Your task to perform on an android device: open a bookmark in the chrome app Image 0: 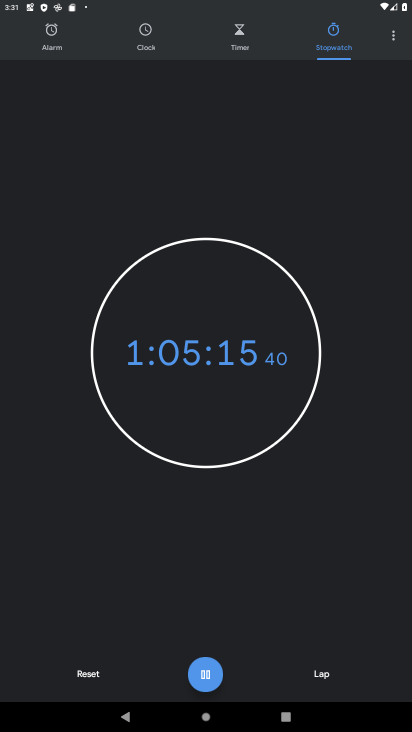
Step 0: press home button
Your task to perform on an android device: open a bookmark in the chrome app Image 1: 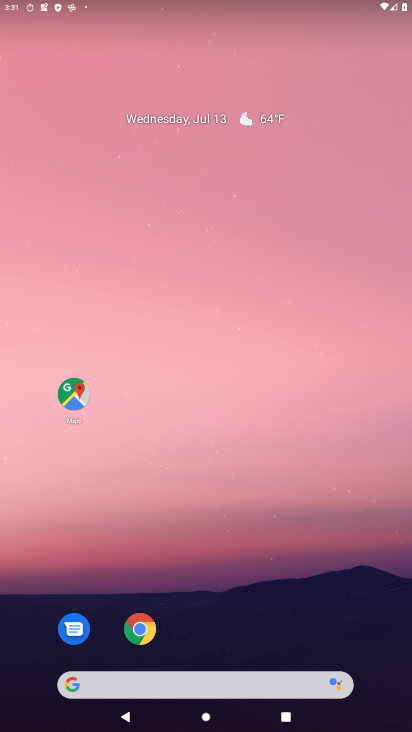
Step 1: drag from (290, 606) to (361, 27)
Your task to perform on an android device: open a bookmark in the chrome app Image 2: 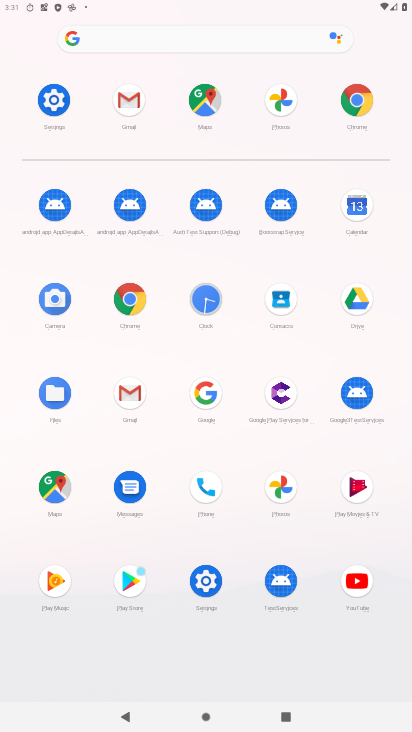
Step 2: click (140, 307)
Your task to perform on an android device: open a bookmark in the chrome app Image 3: 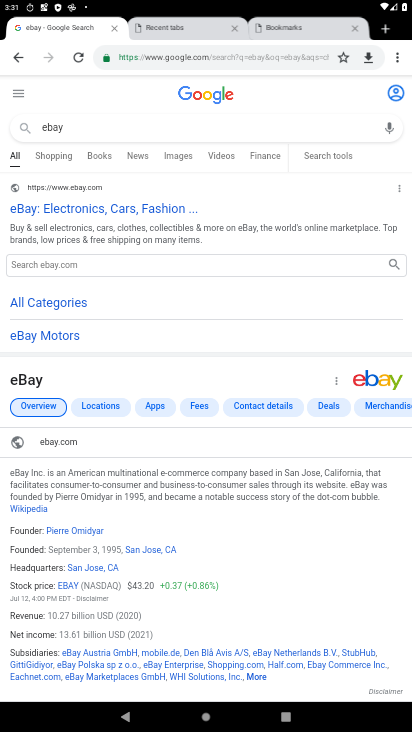
Step 3: task complete